Your task to perform on an android device: turn on location history Image 0: 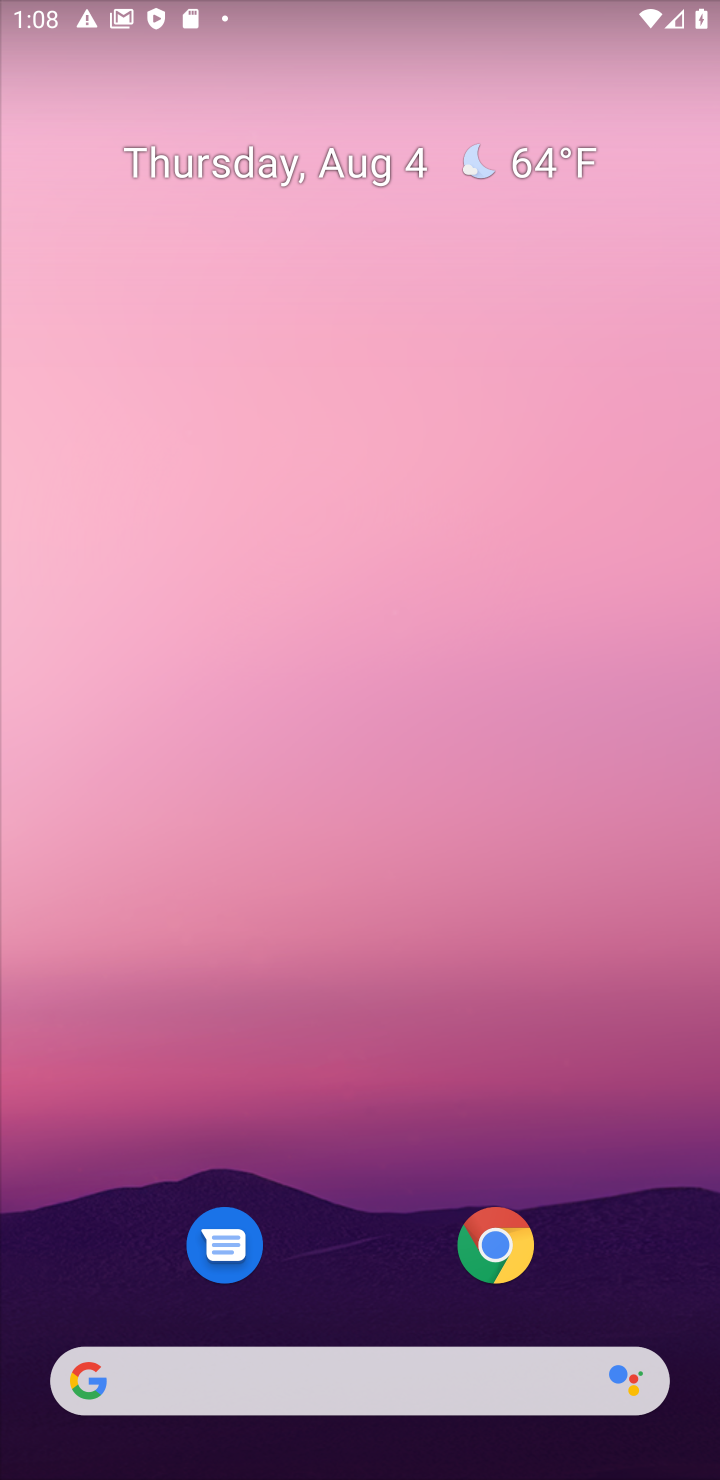
Step 0: drag from (376, 1190) to (415, 303)
Your task to perform on an android device: turn on location history Image 1: 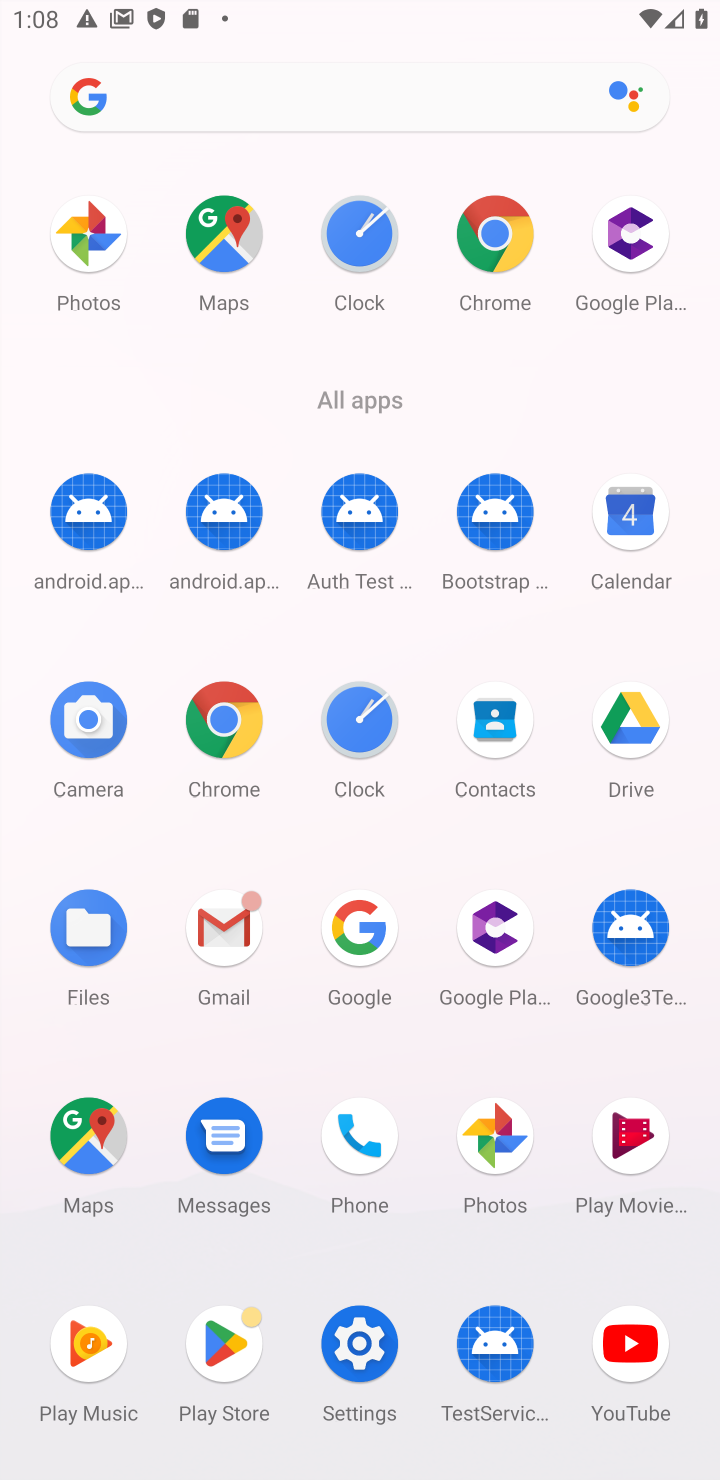
Step 1: click (360, 1351)
Your task to perform on an android device: turn on location history Image 2: 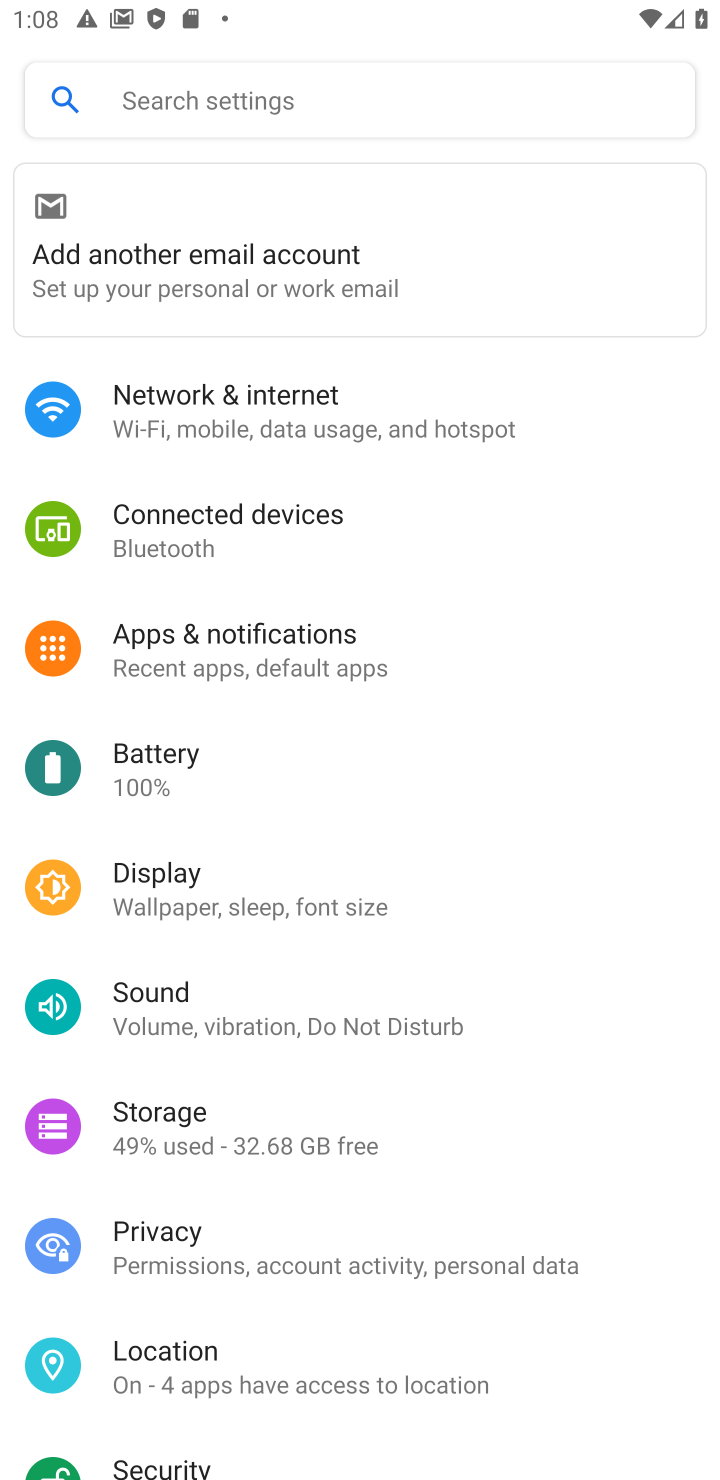
Step 2: click (196, 1350)
Your task to perform on an android device: turn on location history Image 3: 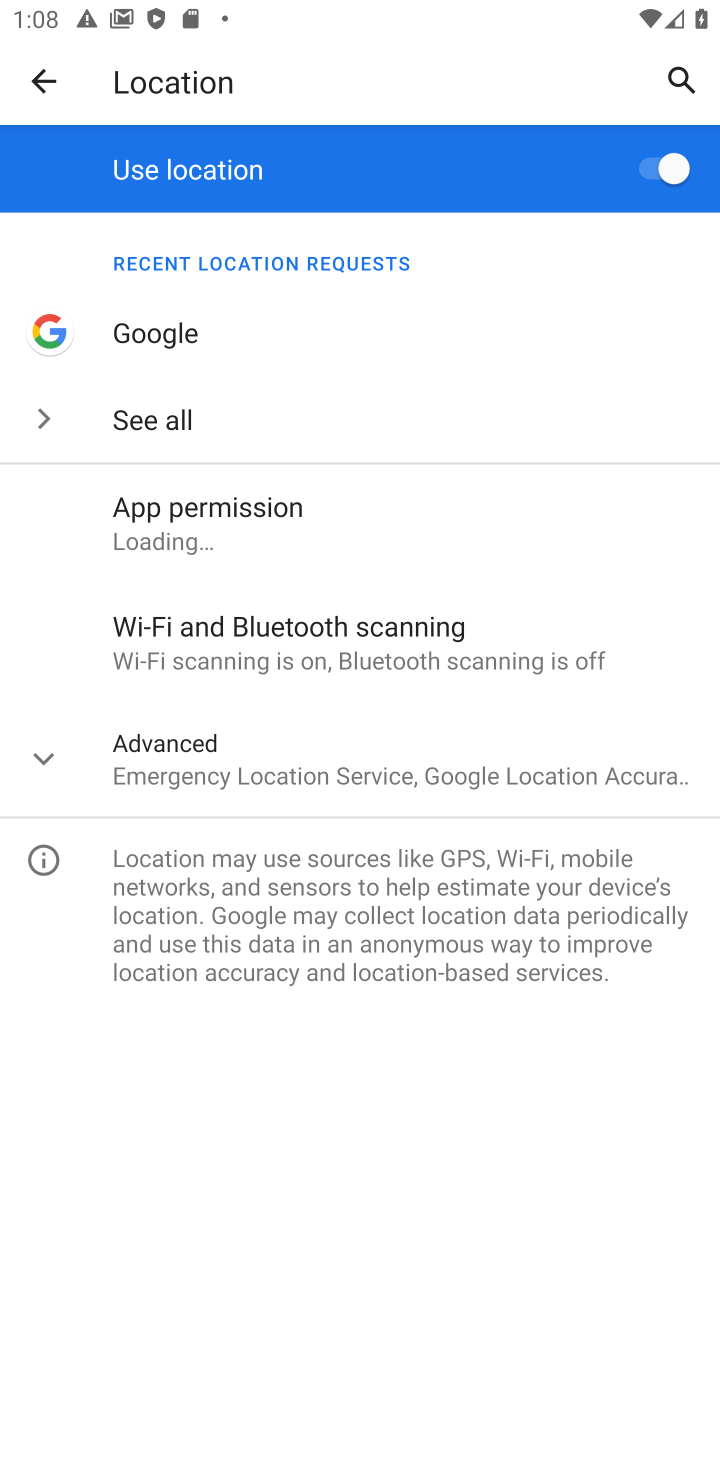
Step 3: click (462, 777)
Your task to perform on an android device: turn on location history Image 4: 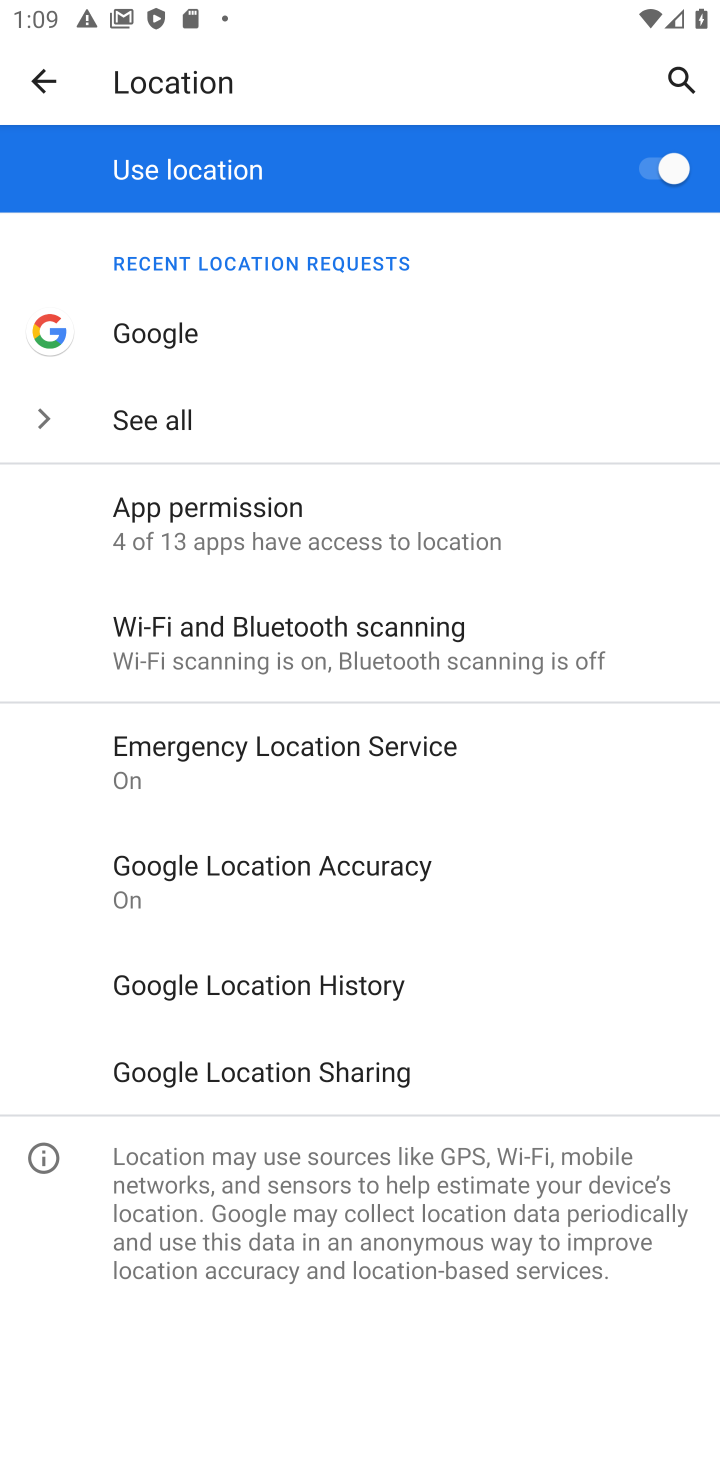
Step 4: click (350, 987)
Your task to perform on an android device: turn on location history Image 5: 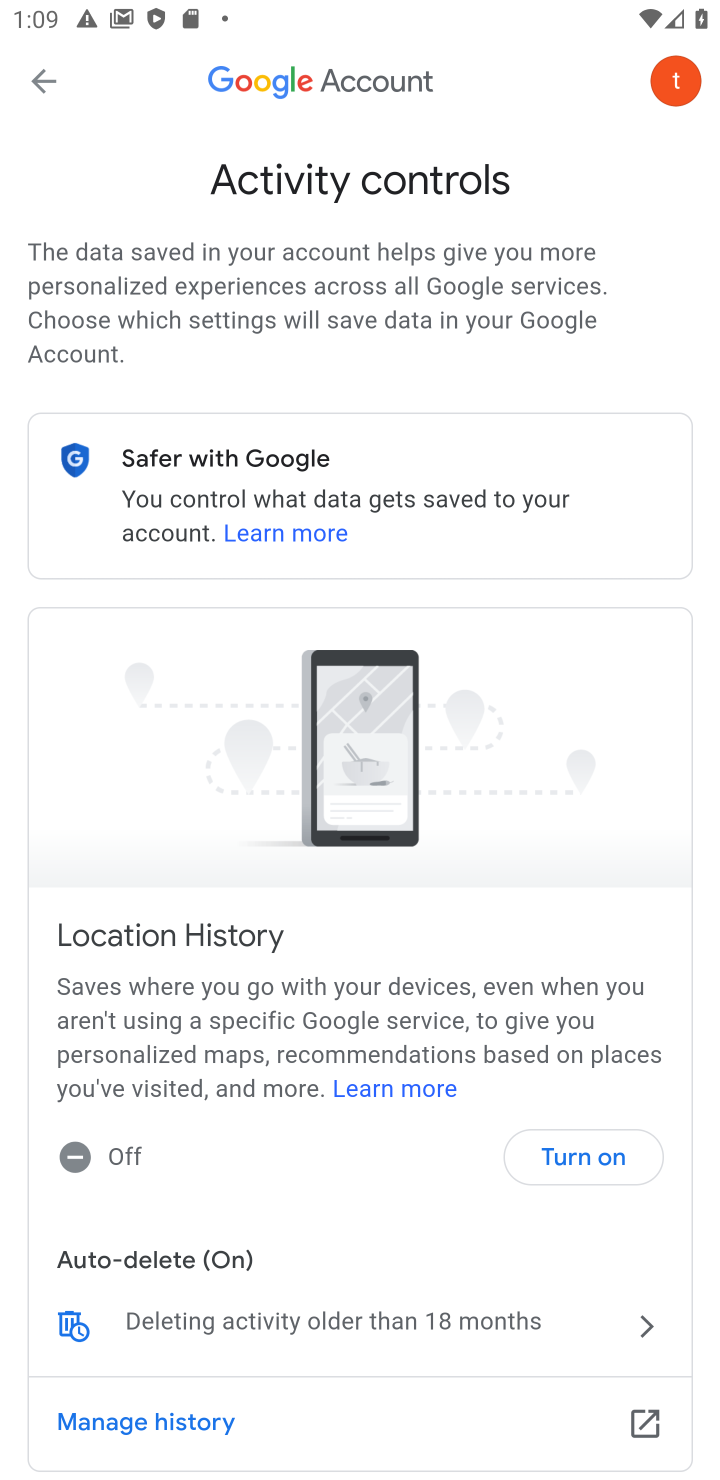
Step 5: click (605, 1162)
Your task to perform on an android device: turn on location history Image 6: 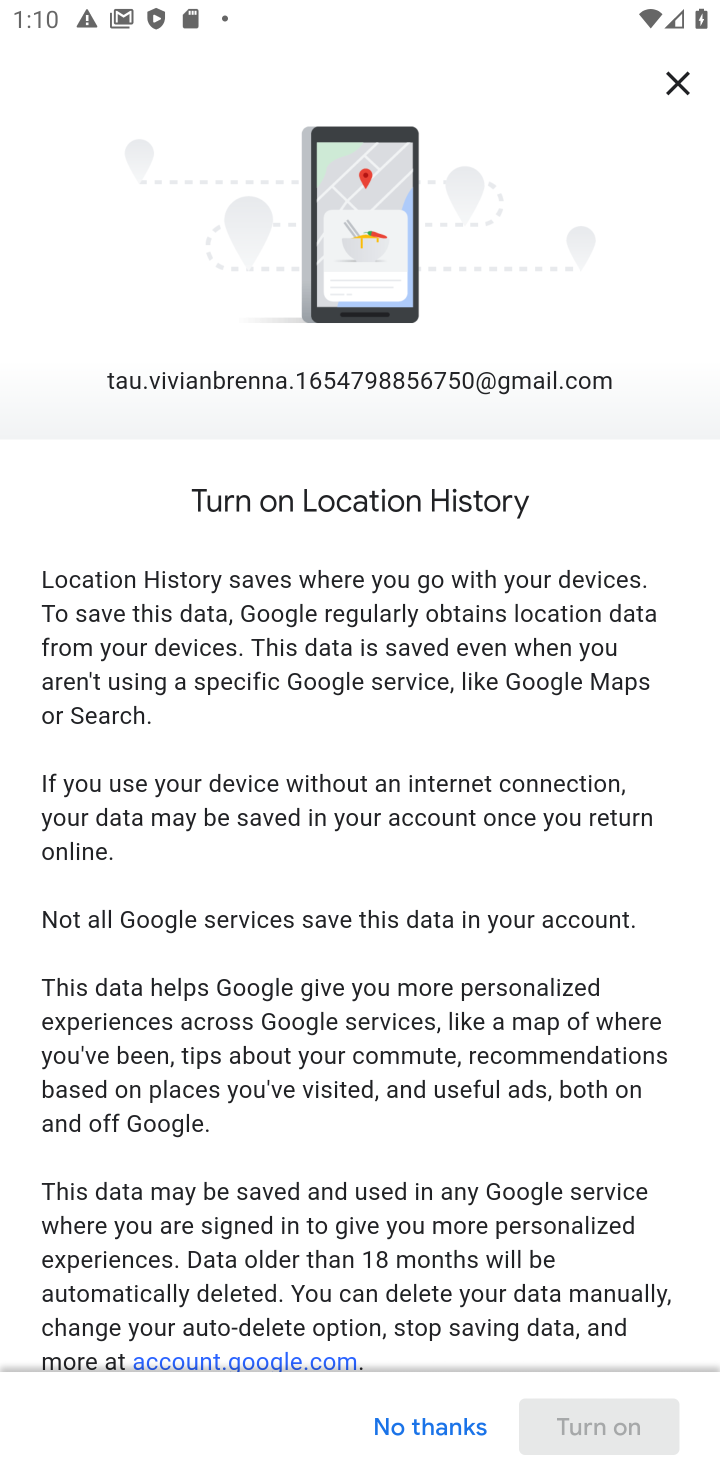
Step 6: drag from (605, 1162) to (579, 606)
Your task to perform on an android device: turn on location history Image 7: 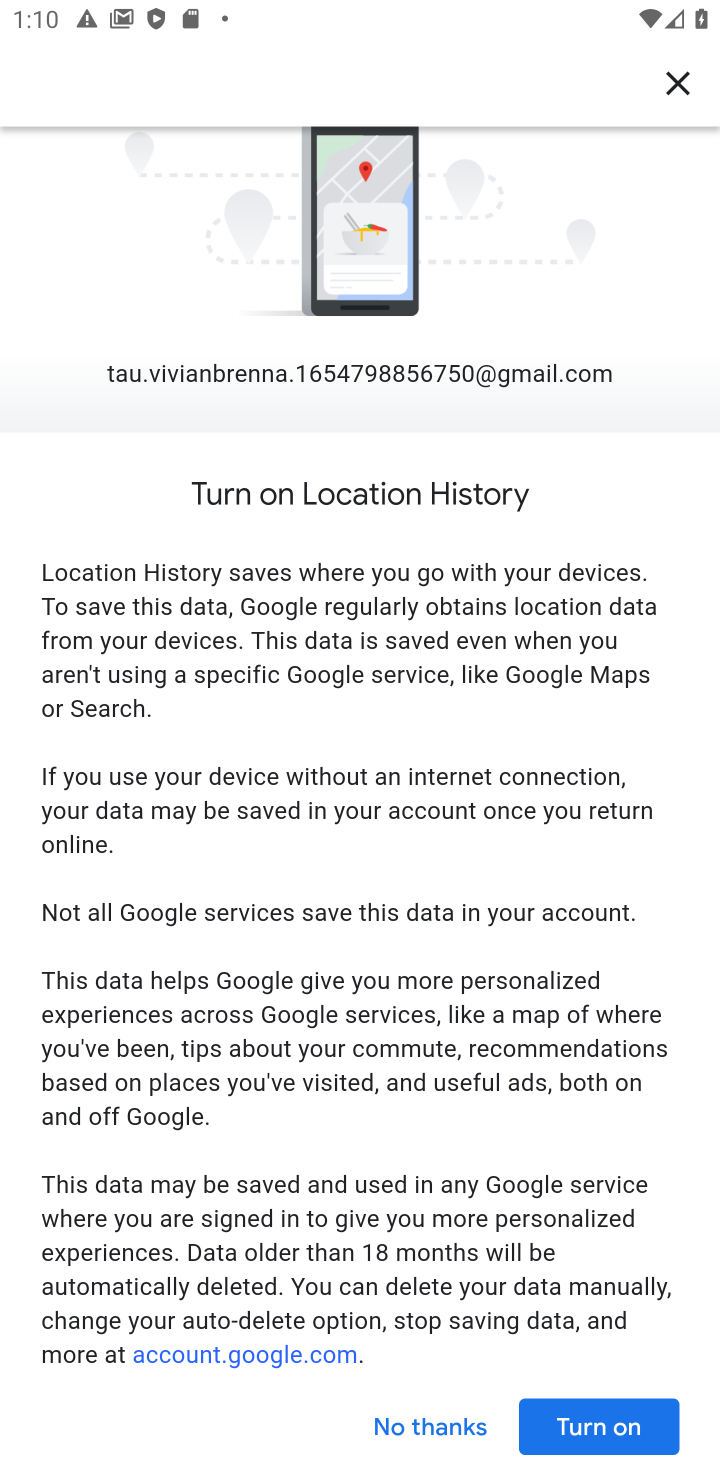
Step 7: click (609, 1417)
Your task to perform on an android device: turn on location history Image 8: 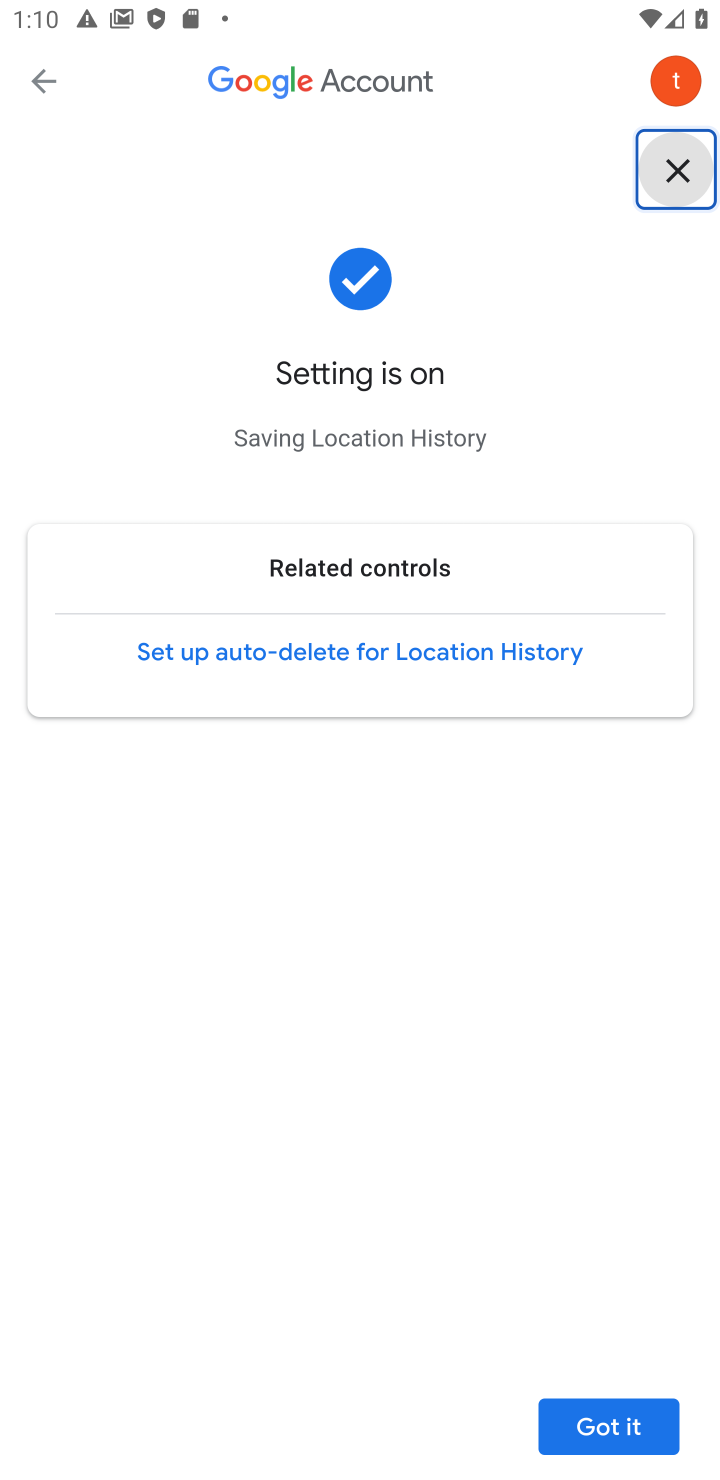
Step 8: task complete